Your task to perform on an android device: turn off priority inbox in the gmail app Image 0: 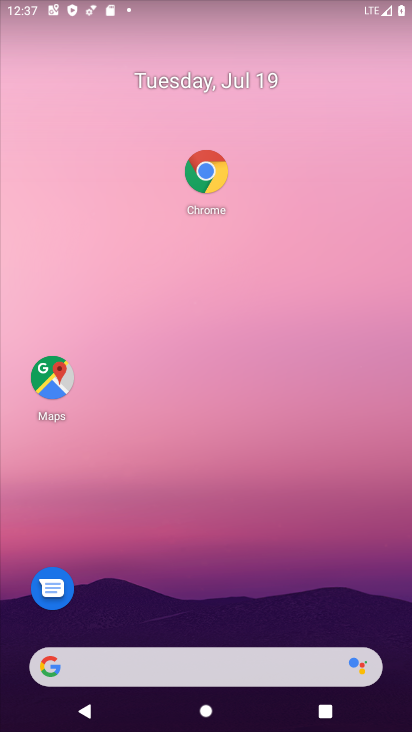
Step 0: drag from (127, 611) to (137, 171)
Your task to perform on an android device: turn off priority inbox in the gmail app Image 1: 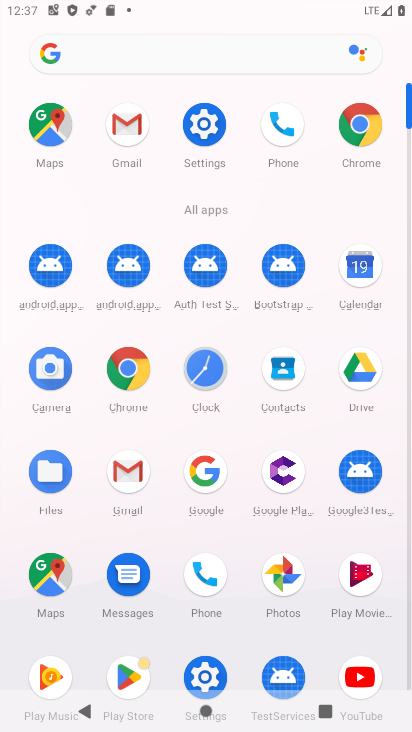
Step 1: click (115, 138)
Your task to perform on an android device: turn off priority inbox in the gmail app Image 2: 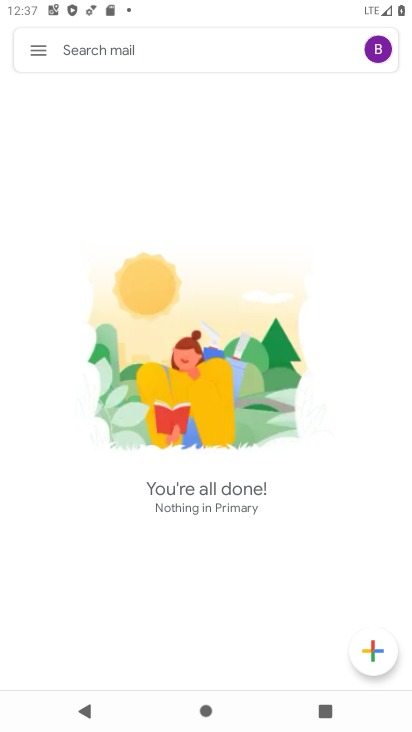
Step 2: click (38, 26)
Your task to perform on an android device: turn off priority inbox in the gmail app Image 3: 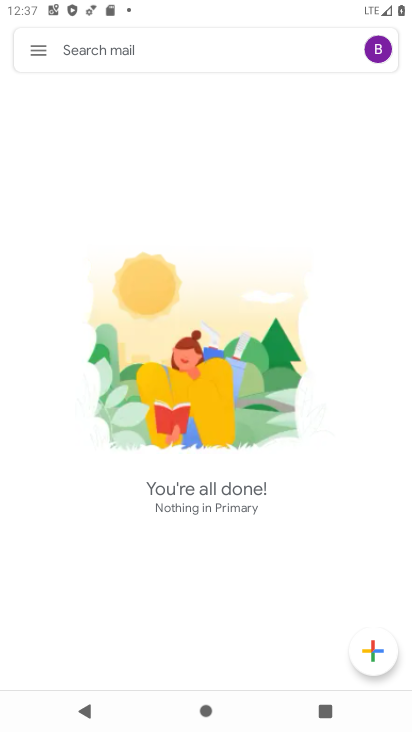
Step 3: click (41, 43)
Your task to perform on an android device: turn off priority inbox in the gmail app Image 4: 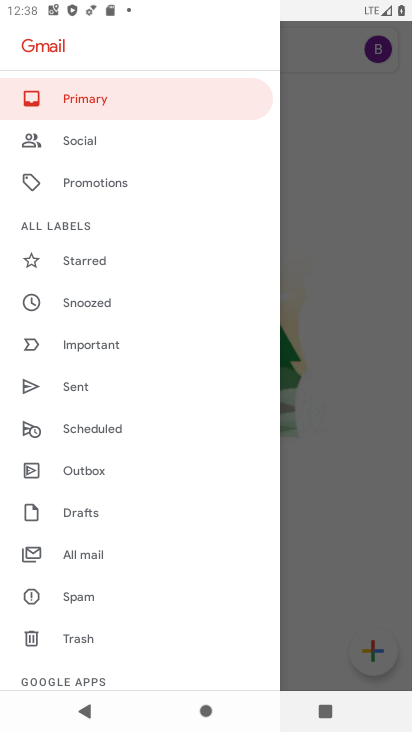
Step 4: drag from (52, 649) to (84, 156)
Your task to perform on an android device: turn off priority inbox in the gmail app Image 5: 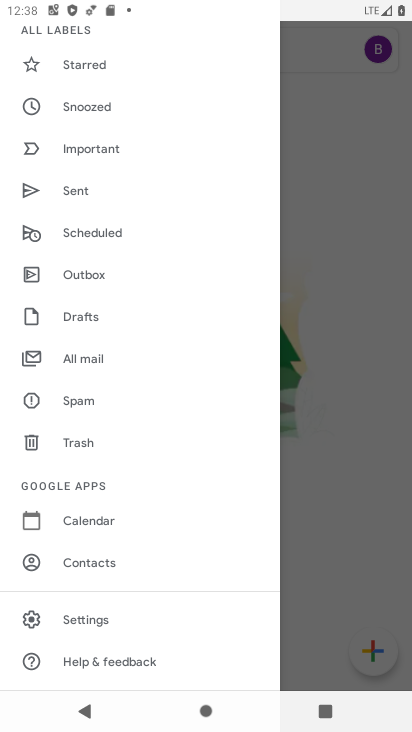
Step 5: click (104, 612)
Your task to perform on an android device: turn off priority inbox in the gmail app Image 6: 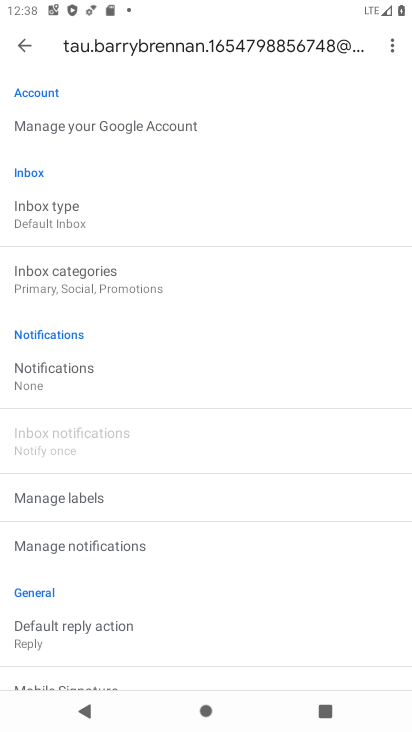
Step 6: click (172, 228)
Your task to perform on an android device: turn off priority inbox in the gmail app Image 7: 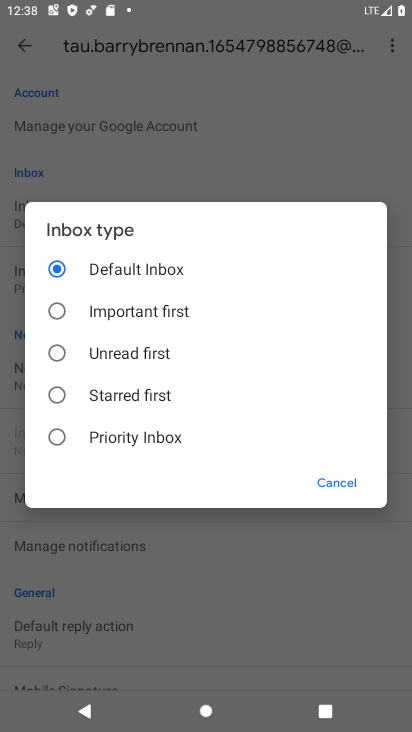
Step 7: task complete